Your task to perform on an android device: turn off data saver in the chrome app Image 0: 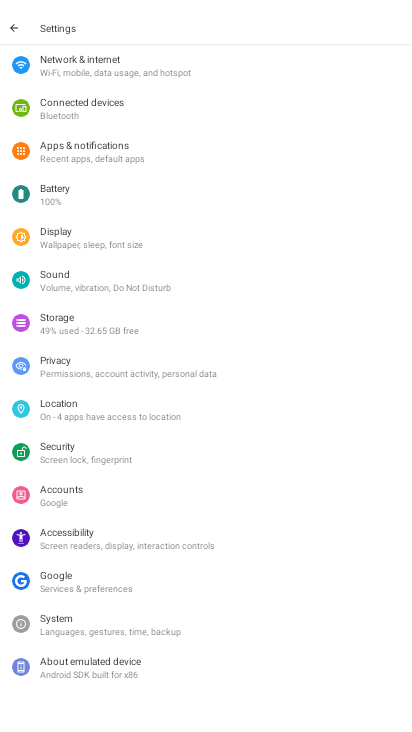
Step 0: press home button
Your task to perform on an android device: turn off data saver in the chrome app Image 1: 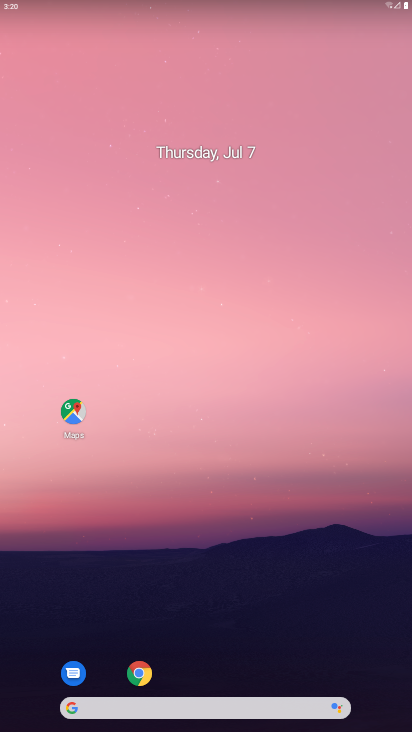
Step 1: click (128, 681)
Your task to perform on an android device: turn off data saver in the chrome app Image 2: 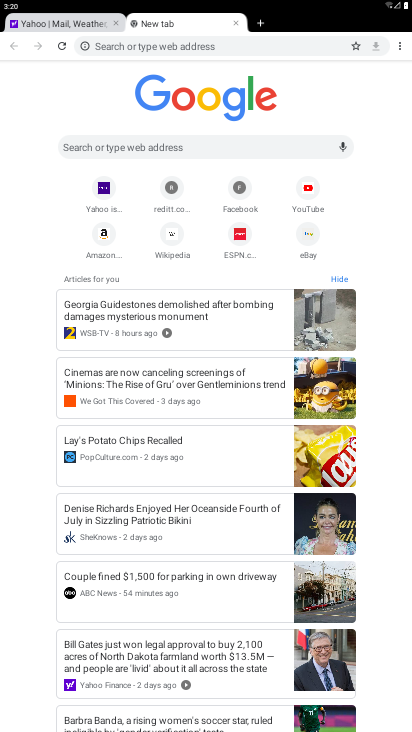
Step 2: drag from (400, 42) to (306, 212)
Your task to perform on an android device: turn off data saver in the chrome app Image 3: 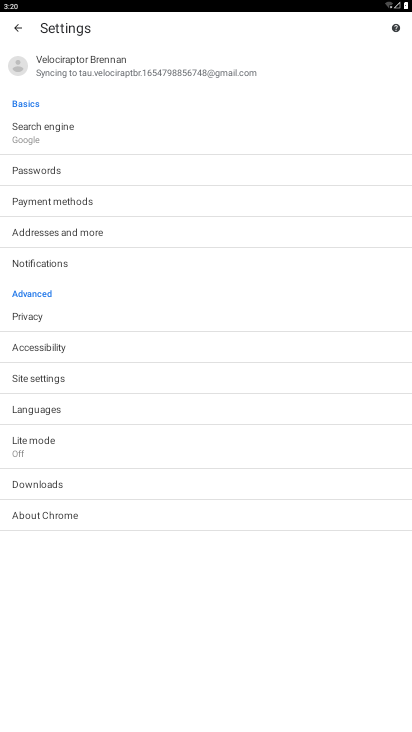
Step 3: click (47, 435)
Your task to perform on an android device: turn off data saver in the chrome app Image 4: 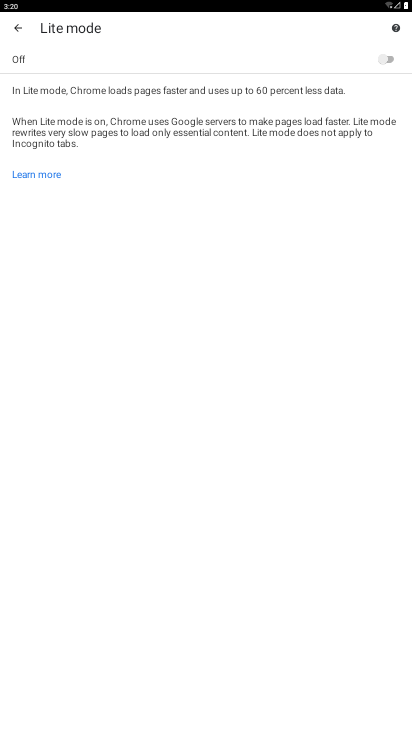
Step 4: task complete